Your task to perform on an android device: turn notification dots off Image 0: 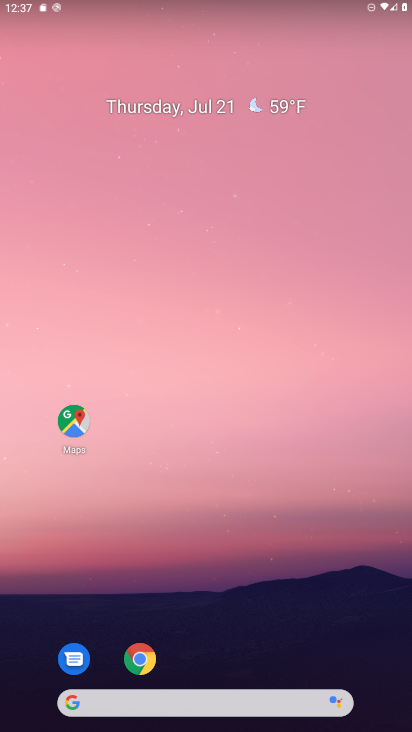
Step 0: drag from (79, 482) to (304, 6)
Your task to perform on an android device: turn notification dots off Image 1: 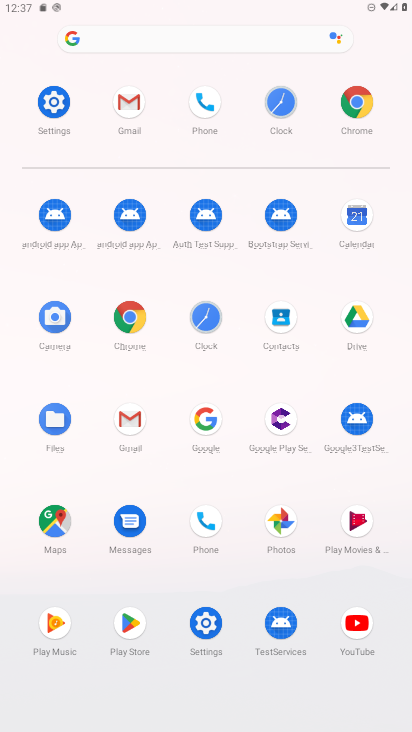
Step 1: click (33, 118)
Your task to perform on an android device: turn notification dots off Image 2: 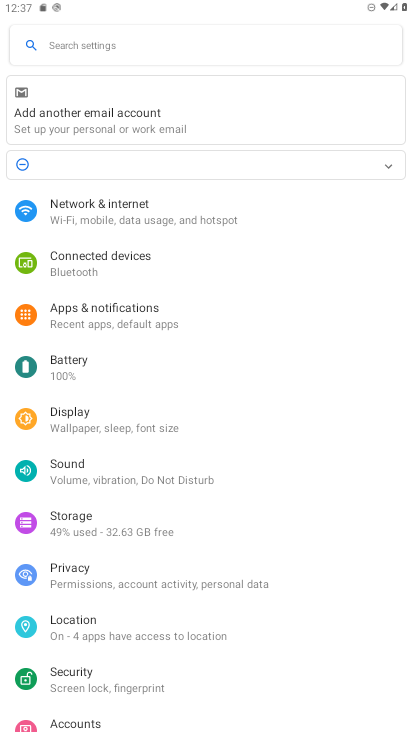
Step 2: click (108, 313)
Your task to perform on an android device: turn notification dots off Image 3: 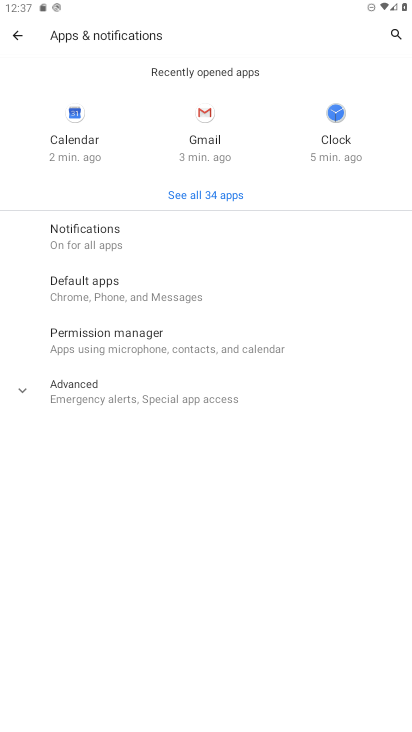
Step 3: click (108, 240)
Your task to perform on an android device: turn notification dots off Image 4: 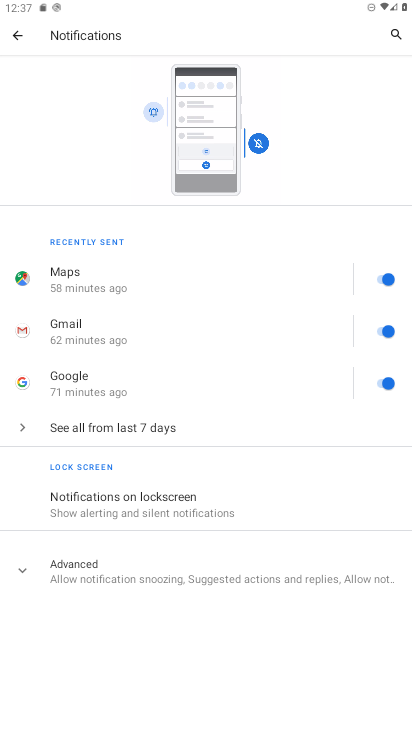
Step 4: click (121, 572)
Your task to perform on an android device: turn notification dots off Image 5: 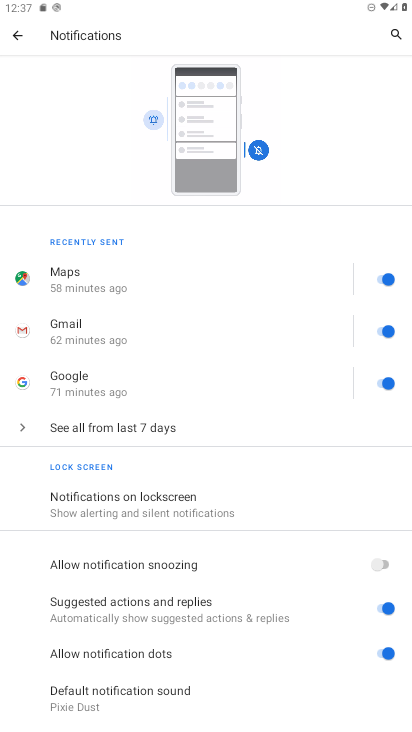
Step 5: click (387, 651)
Your task to perform on an android device: turn notification dots off Image 6: 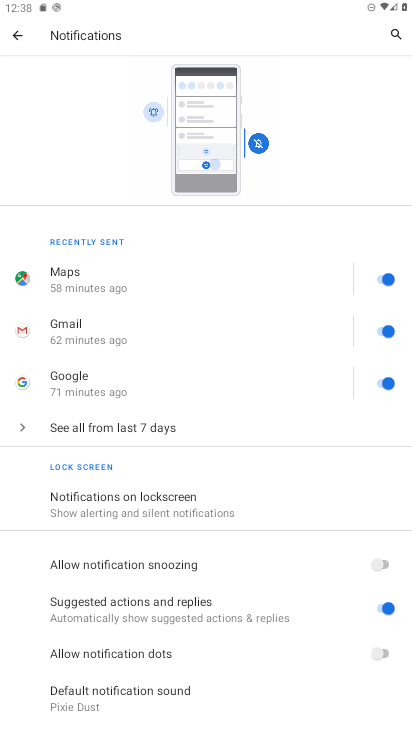
Step 6: task complete